Your task to perform on an android device: Open the map Image 0: 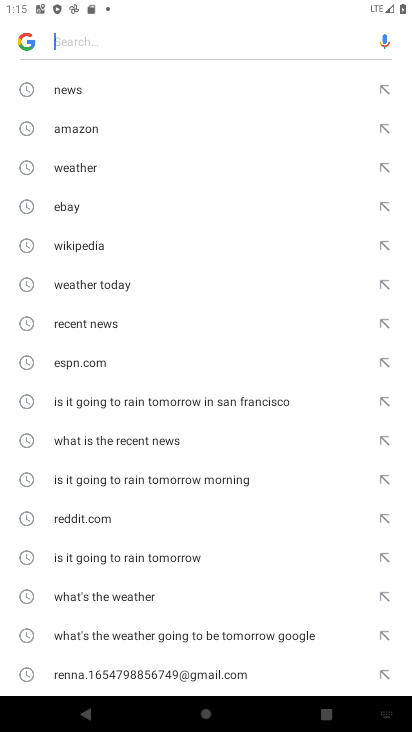
Step 0: press home button
Your task to perform on an android device: Open the map Image 1: 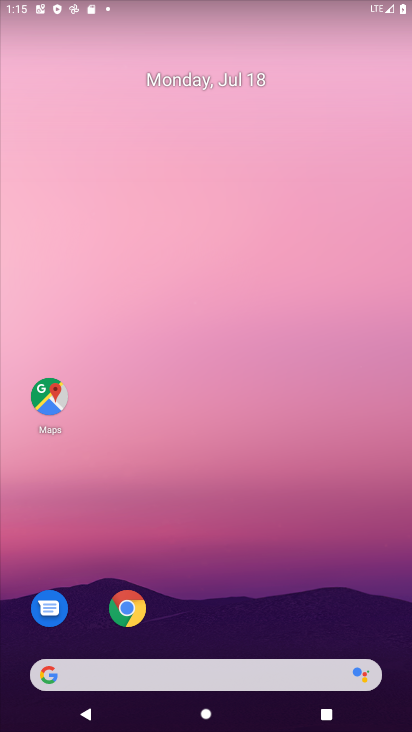
Step 1: drag from (395, 602) to (250, 4)
Your task to perform on an android device: Open the map Image 2: 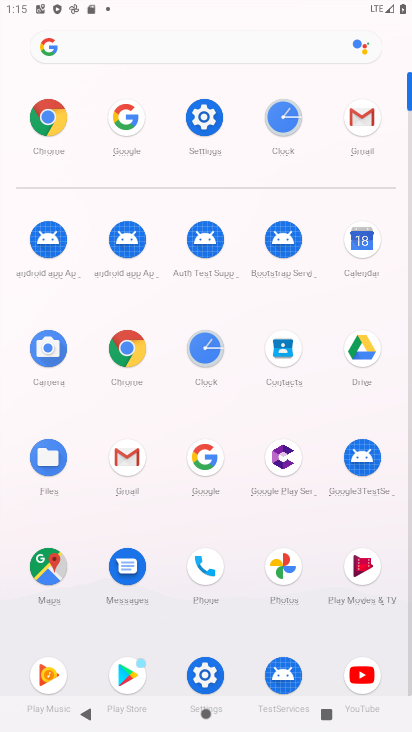
Step 2: click (43, 558)
Your task to perform on an android device: Open the map Image 3: 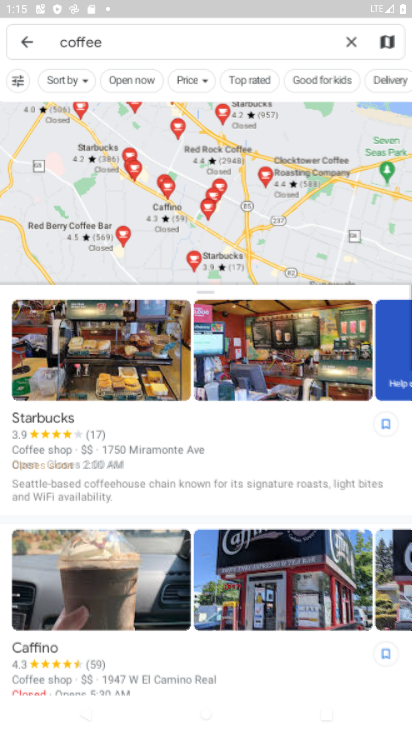
Step 3: click (352, 44)
Your task to perform on an android device: Open the map Image 4: 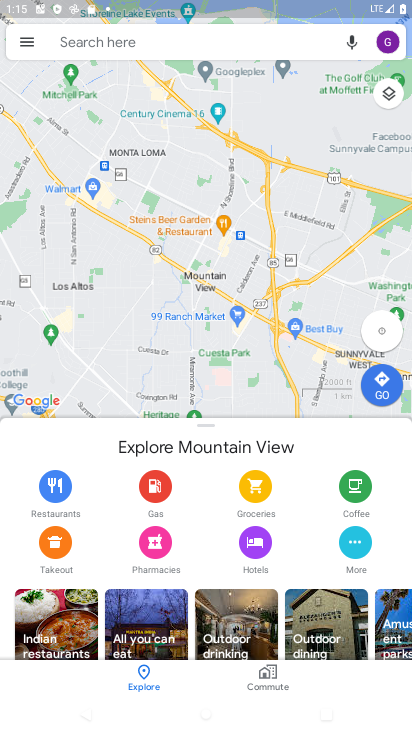
Step 4: task complete